Your task to perform on an android device: Search for "dell alienware" on ebay.com, select the first entry, add it to the cart, then select checkout. Image 0: 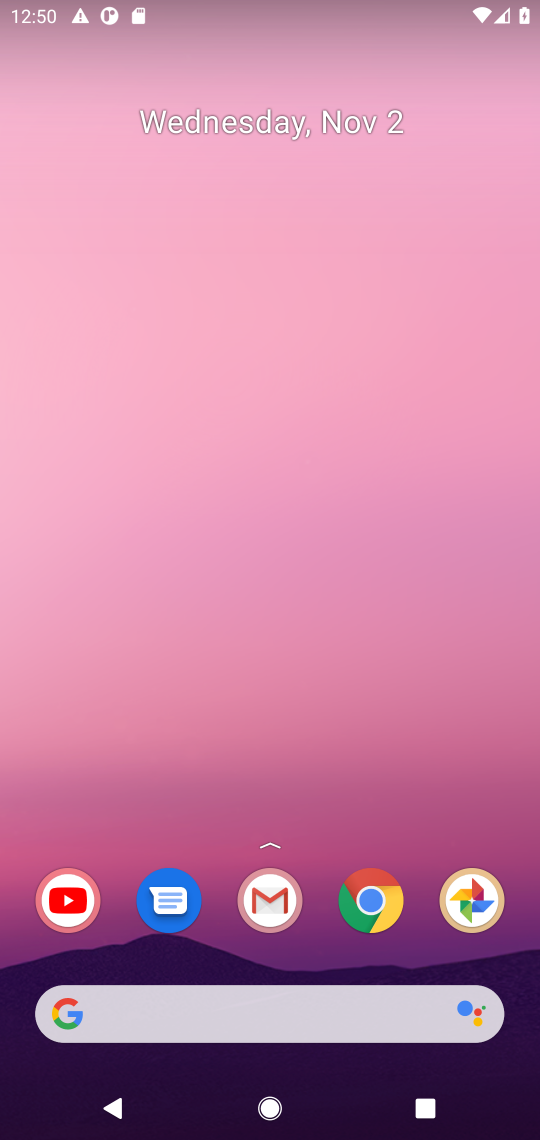
Step 0: click (412, 873)
Your task to perform on an android device: Search for "dell alienware" on ebay.com, select the first entry, add it to the cart, then select checkout. Image 1: 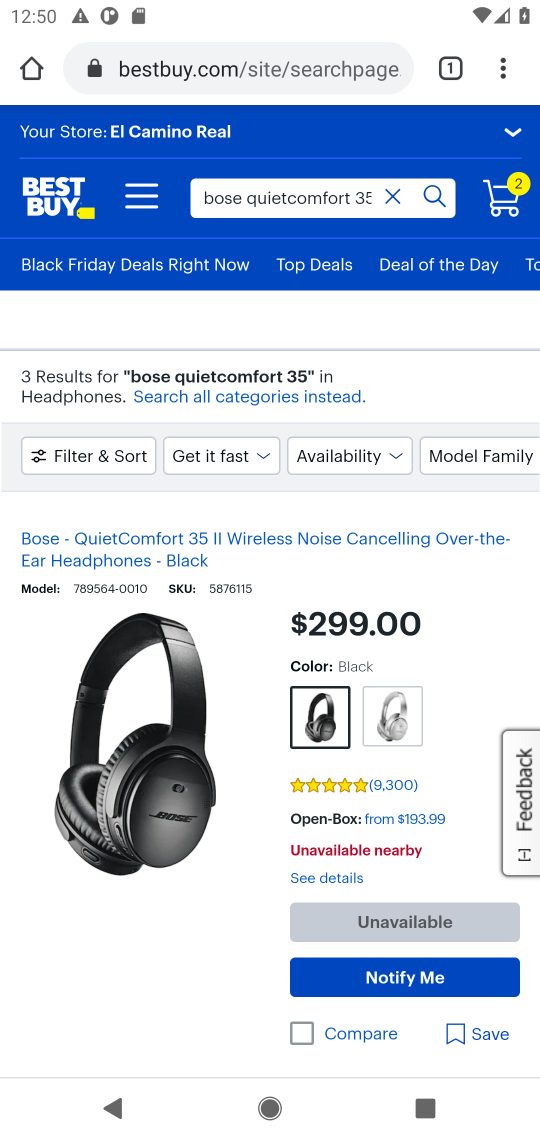
Step 1: click (135, 78)
Your task to perform on an android device: Search for "dell alienware" on ebay.com, select the first entry, add it to the cart, then select checkout. Image 2: 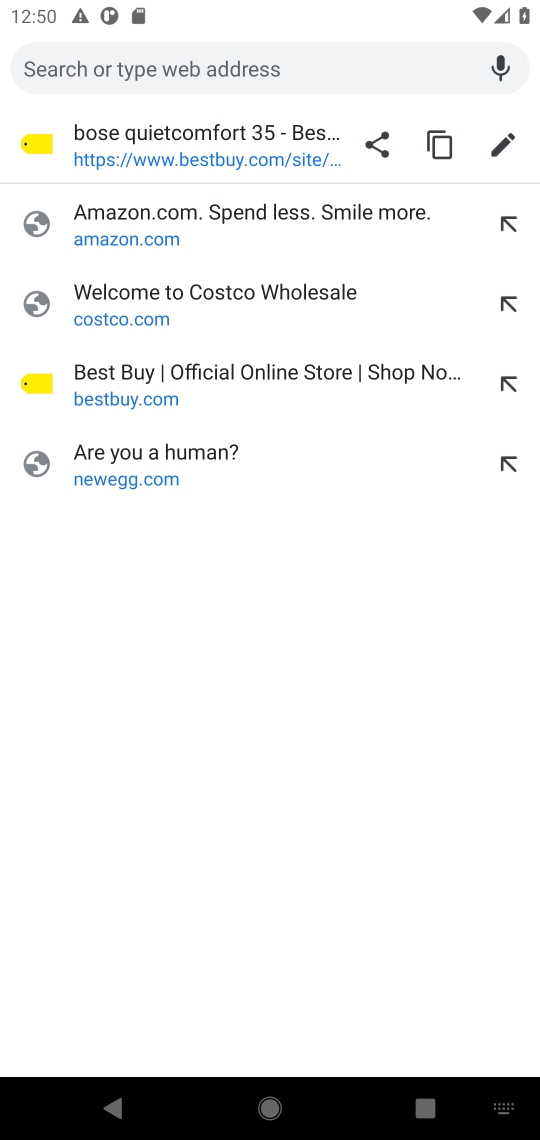
Step 2: type "ebay"
Your task to perform on an android device: Search for "dell alienware" on ebay.com, select the first entry, add it to the cart, then select checkout. Image 3: 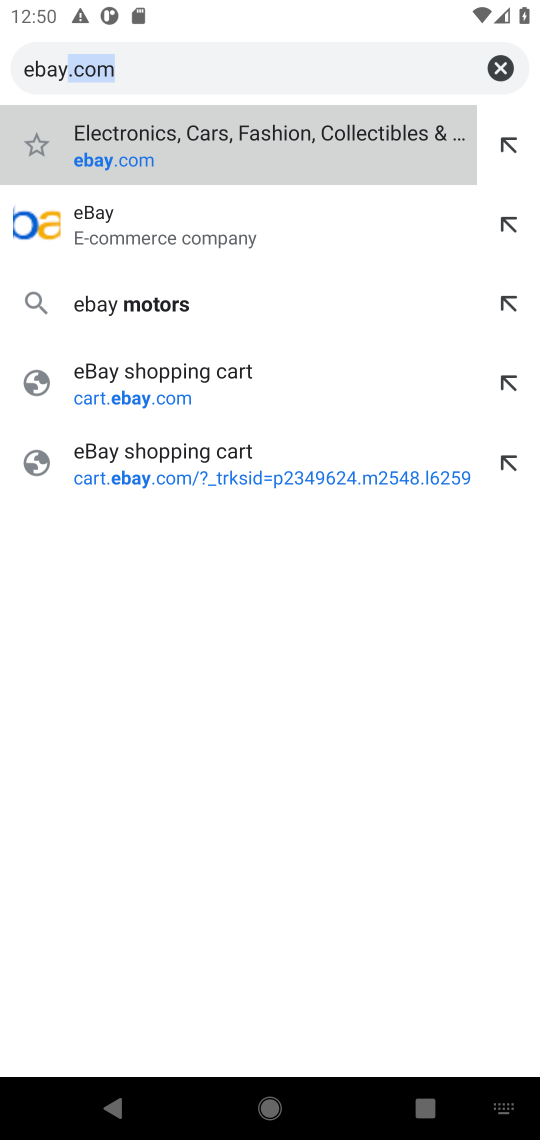
Step 3: click (105, 245)
Your task to perform on an android device: Search for "dell alienware" on ebay.com, select the first entry, add it to the cart, then select checkout. Image 4: 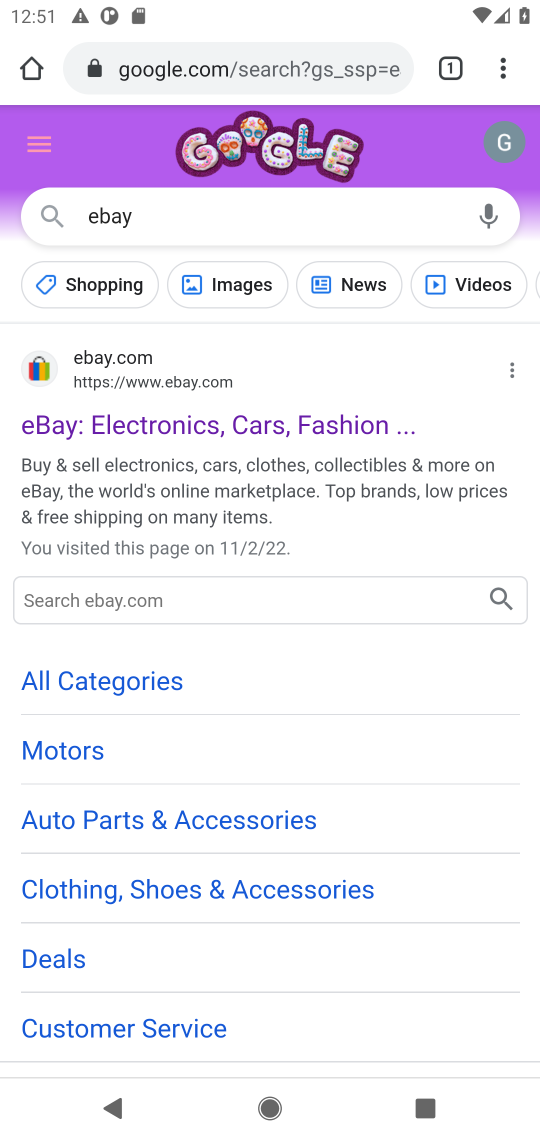
Step 4: click (94, 415)
Your task to perform on an android device: Search for "dell alienware" on ebay.com, select the first entry, add it to the cart, then select checkout. Image 5: 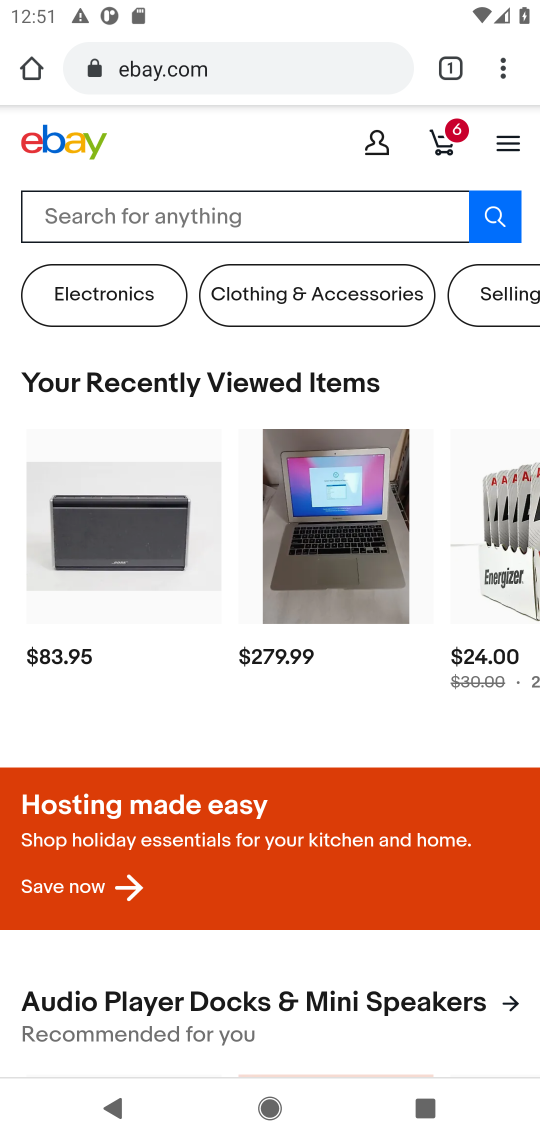
Step 5: click (152, 223)
Your task to perform on an android device: Search for "dell alienware" on ebay.com, select the first entry, add it to the cart, then select checkout. Image 6: 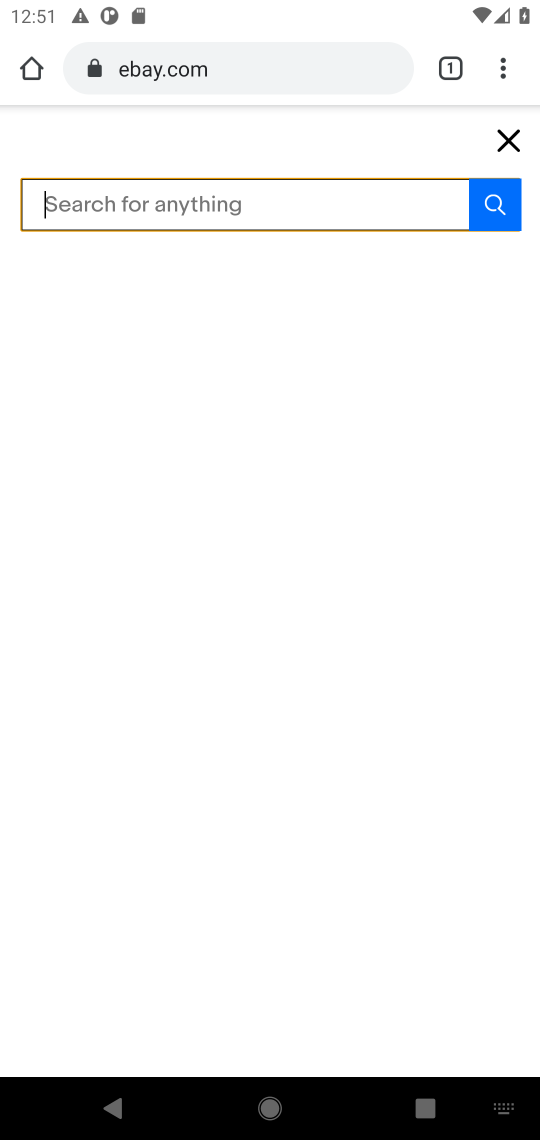
Step 6: type "dell alienware"
Your task to perform on an android device: Search for "dell alienware" on ebay.com, select the first entry, add it to the cart, then select checkout. Image 7: 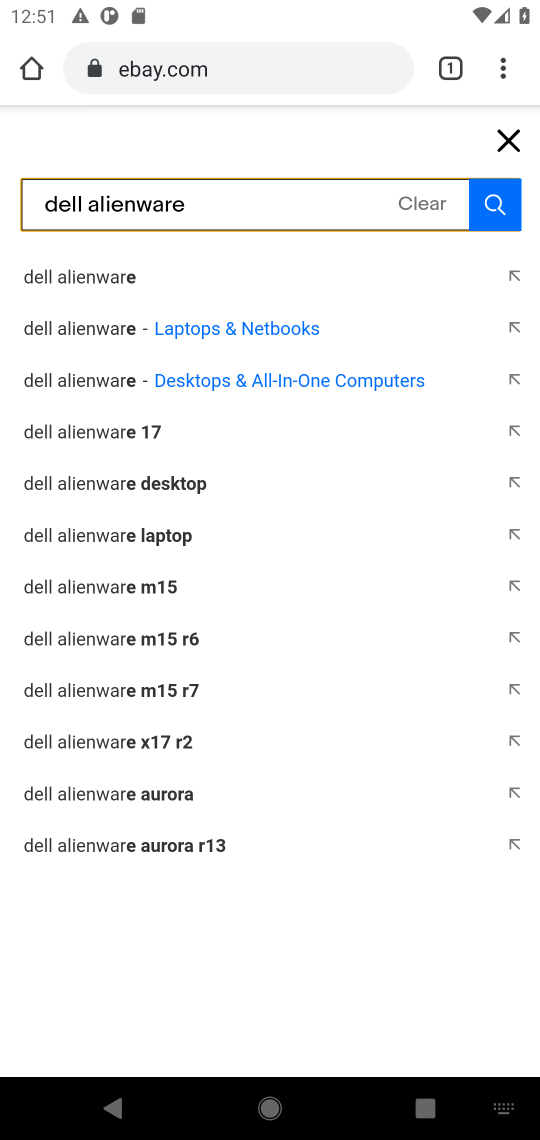
Step 7: click (491, 208)
Your task to perform on an android device: Search for "dell alienware" on ebay.com, select the first entry, add it to the cart, then select checkout. Image 8: 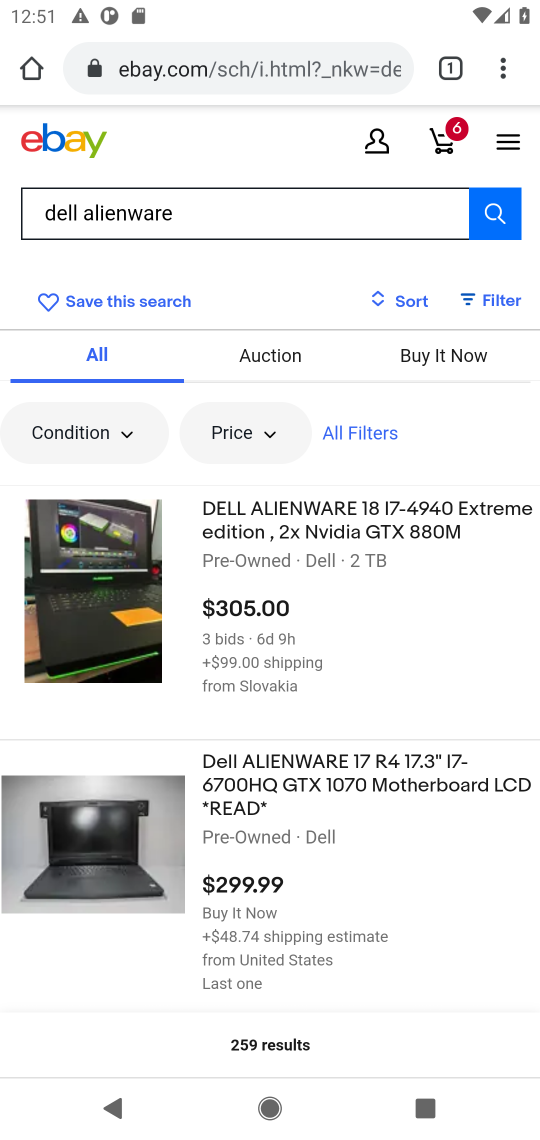
Step 8: click (294, 557)
Your task to perform on an android device: Search for "dell alienware" on ebay.com, select the first entry, add it to the cart, then select checkout. Image 9: 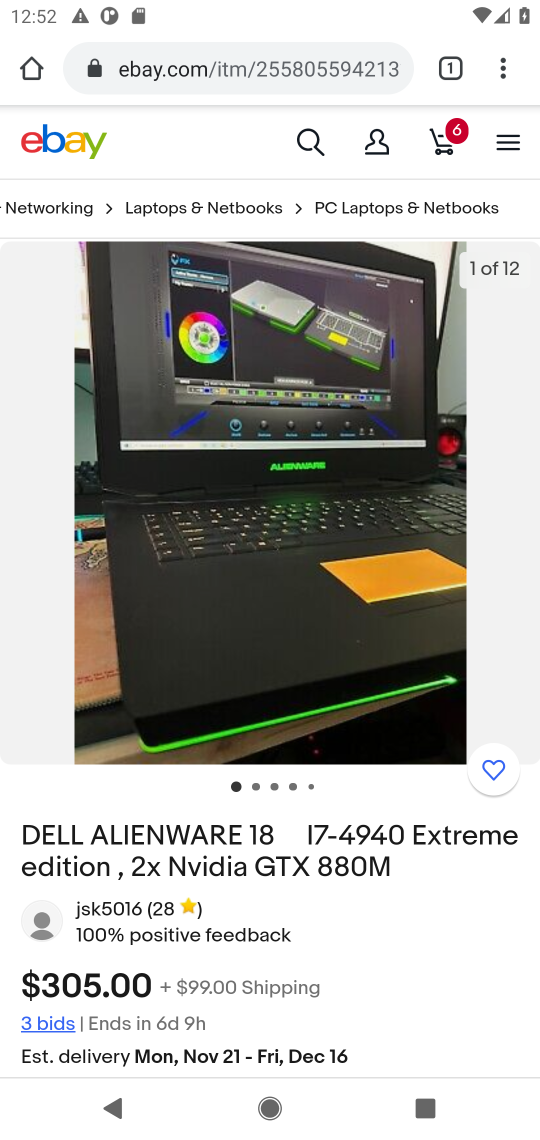
Step 9: drag from (247, 953) to (266, 400)
Your task to perform on an android device: Search for "dell alienware" on ebay.com, select the first entry, add it to the cart, then select checkout. Image 10: 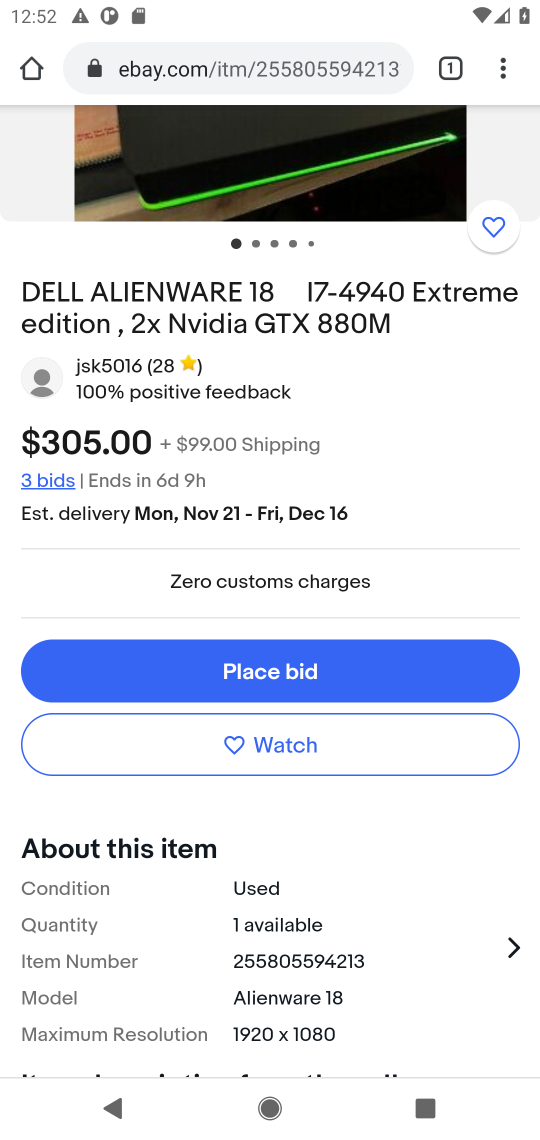
Step 10: press back button
Your task to perform on an android device: Search for "dell alienware" on ebay.com, select the first entry, add it to the cart, then select checkout. Image 11: 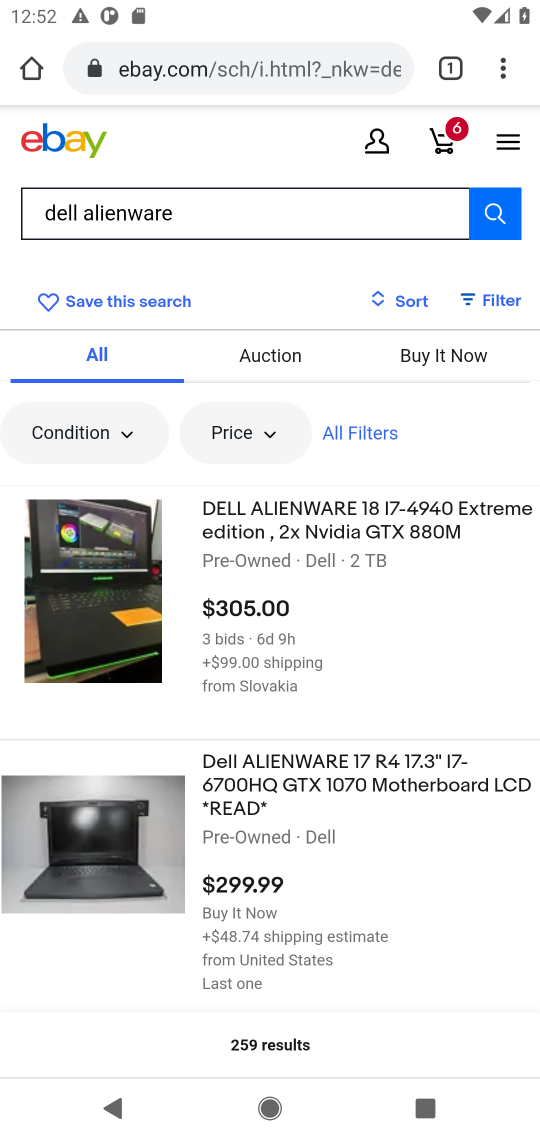
Step 11: click (381, 755)
Your task to perform on an android device: Search for "dell alienware" on ebay.com, select the first entry, add it to the cart, then select checkout. Image 12: 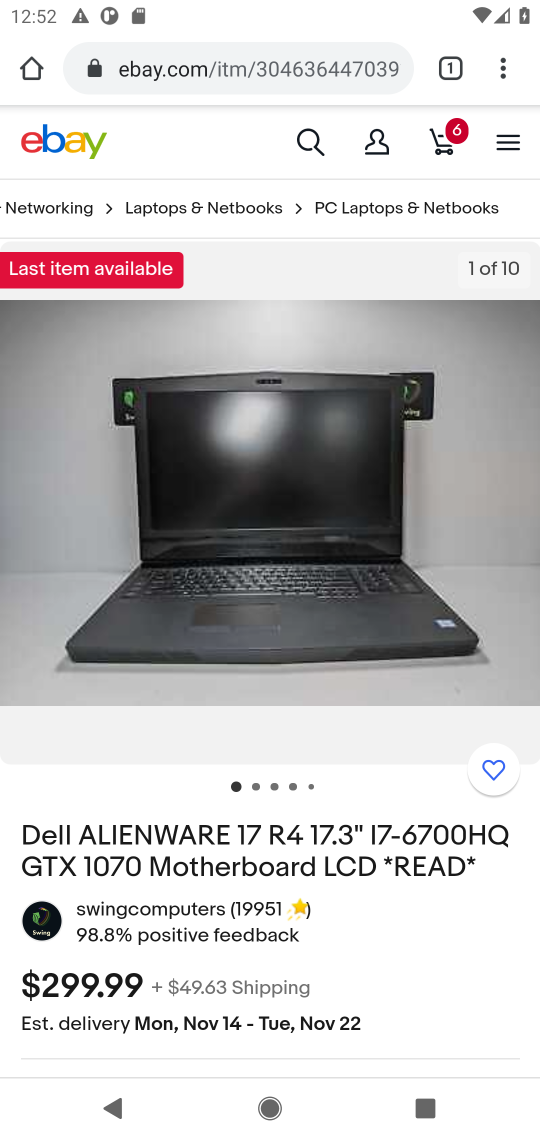
Step 12: drag from (356, 962) to (326, 256)
Your task to perform on an android device: Search for "dell alienware" on ebay.com, select the first entry, add it to the cart, then select checkout. Image 13: 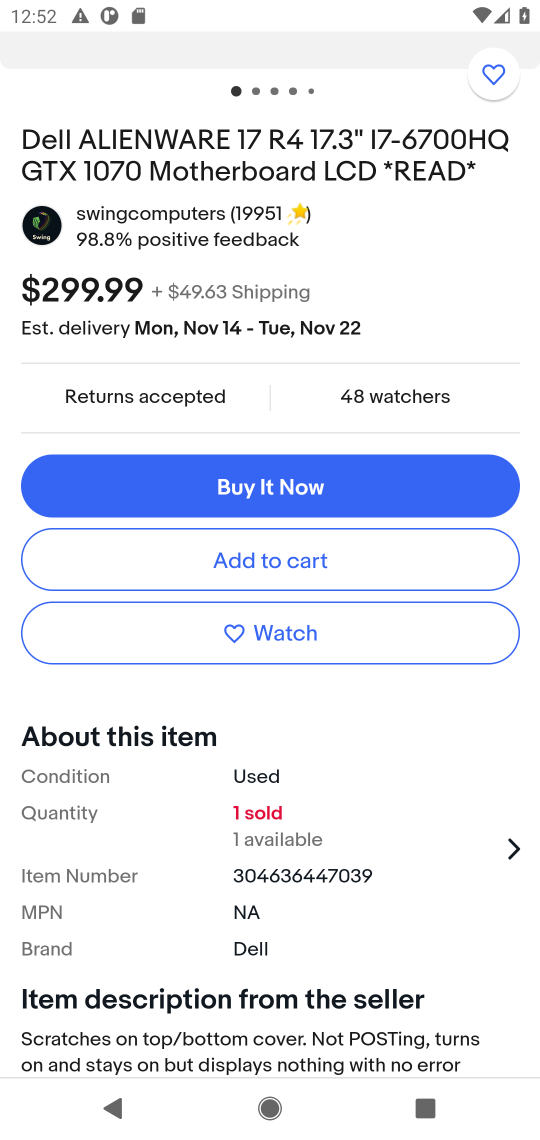
Step 13: click (392, 565)
Your task to perform on an android device: Search for "dell alienware" on ebay.com, select the first entry, add it to the cart, then select checkout. Image 14: 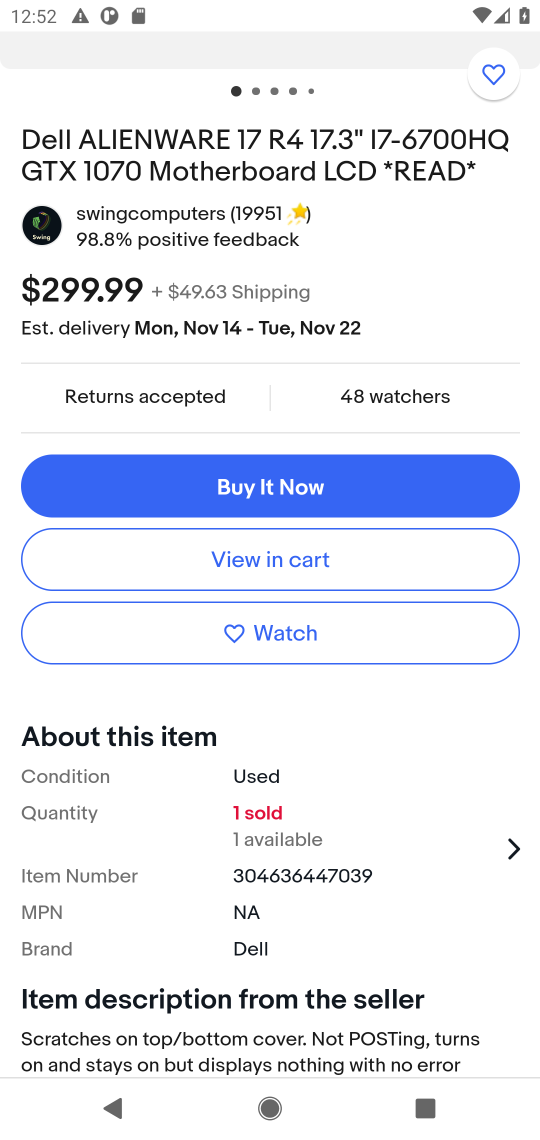
Step 14: click (392, 565)
Your task to perform on an android device: Search for "dell alienware" on ebay.com, select the first entry, add it to the cart, then select checkout. Image 15: 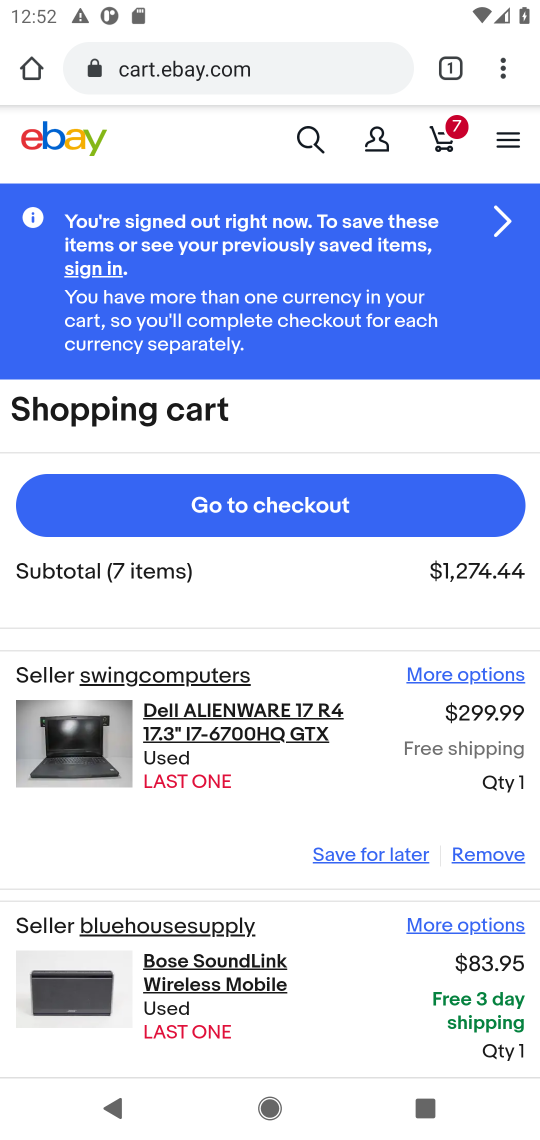
Step 15: click (243, 515)
Your task to perform on an android device: Search for "dell alienware" on ebay.com, select the first entry, add it to the cart, then select checkout. Image 16: 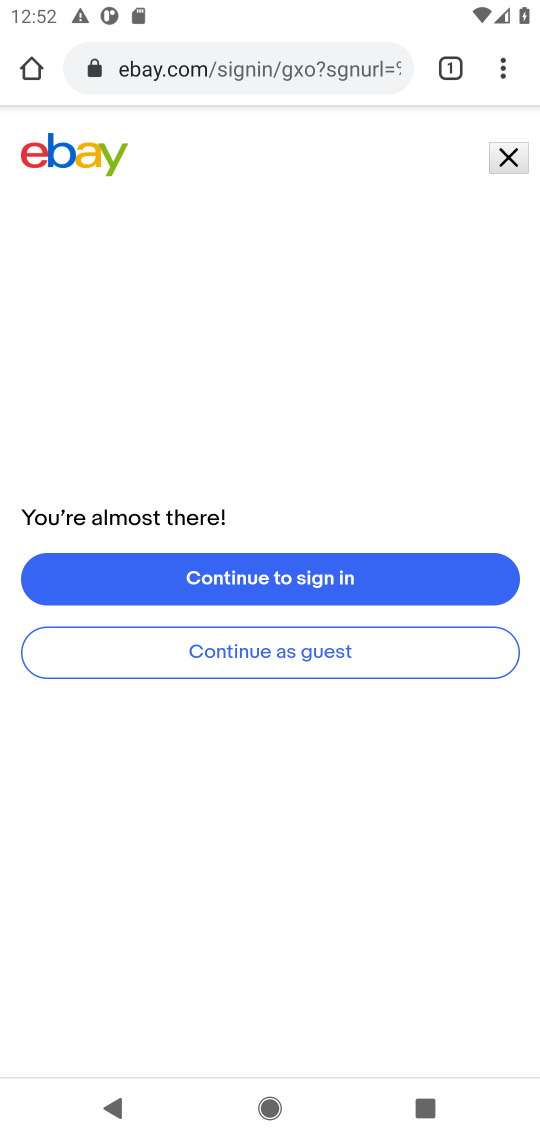
Step 16: task complete